Your task to perform on an android device: Open display settings Image 0: 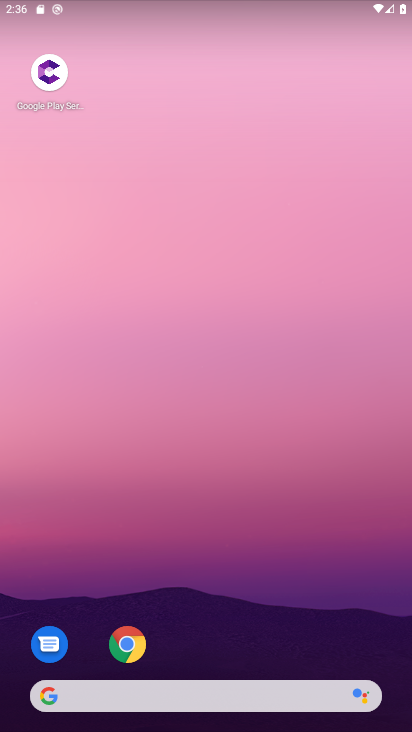
Step 0: drag from (234, 633) to (373, 78)
Your task to perform on an android device: Open display settings Image 1: 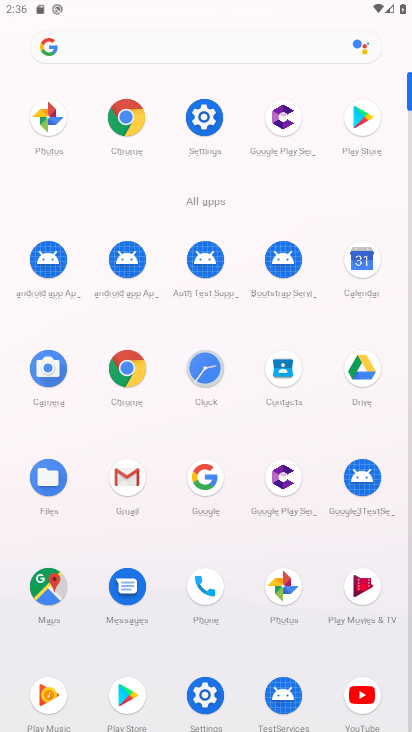
Step 1: click (199, 112)
Your task to perform on an android device: Open display settings Image 2: 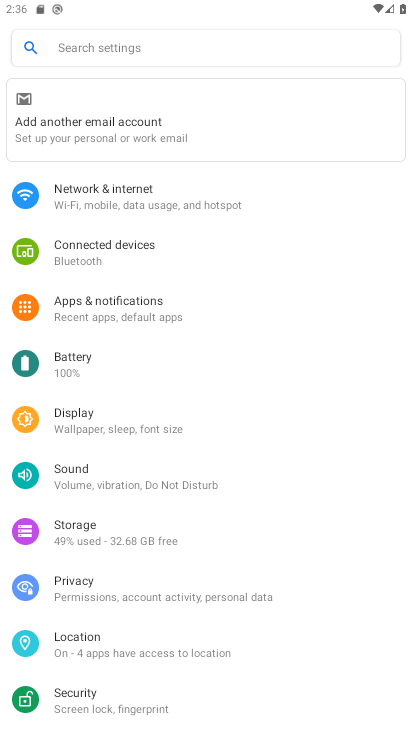
Step 2: click (138, 421)
Your task to perform on an android device: Open display settings Image 3: 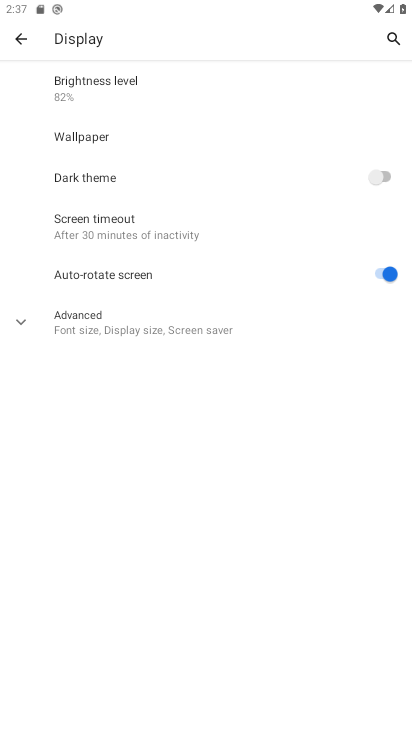
Step 3: task complete